Your task to perform on an android device: Open Wikipedia Image 0: 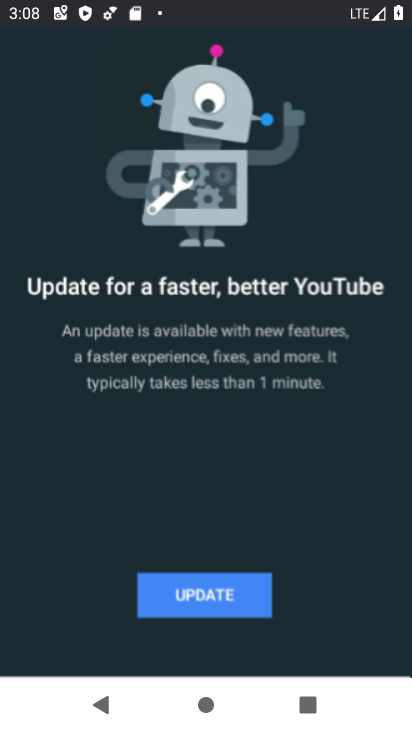
Step 0: press home button
Your task to perform on an android device: Open Wikipedia Image 1: 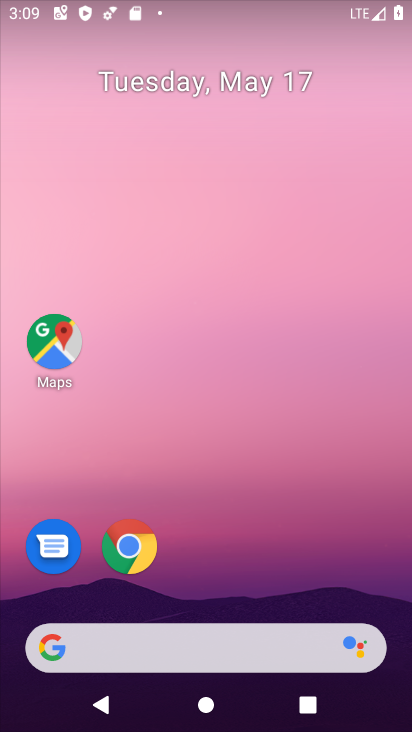
Step 1: click (149, 544)
Your task to perform on an android device: Open Wikipedia Image 2: 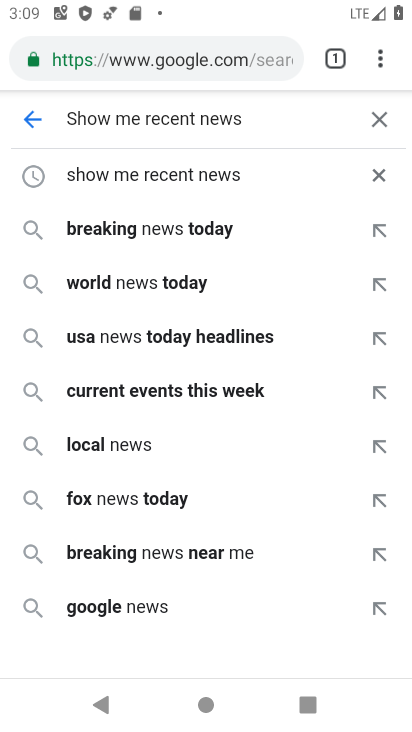
Step 2: click (377, 119)
Your task to perform on an android device: Open Wikipedia Image 3: 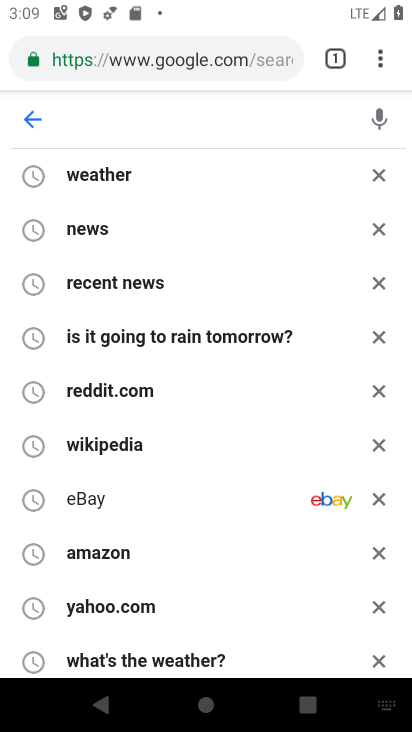
Step 3: click (231, 117)
Your task to perform on an android device: Open Wikipedia Image 4: 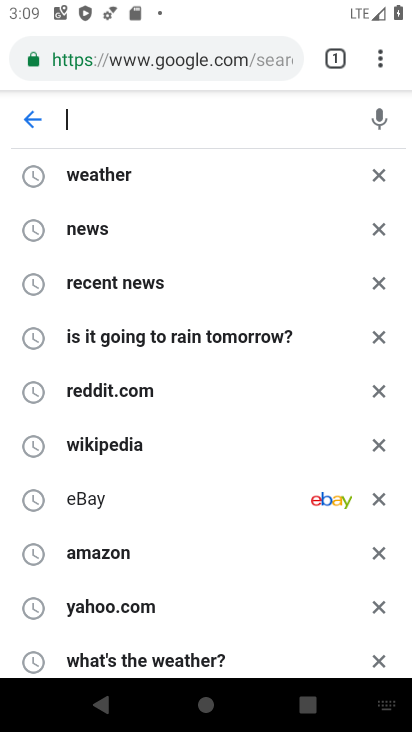
Step 4: type "Wikipedia"
Your task to perform on an android device: Open Wikipedia Image 5: 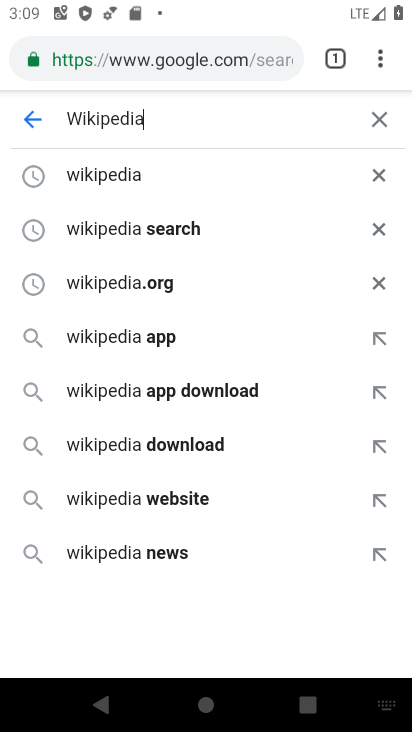
Step 5: click (133, 164)
Your task to perform on an android device: Open Wikipedia Image 6: 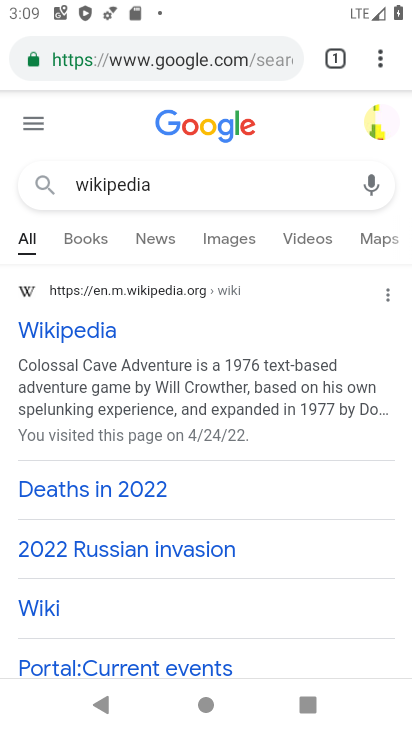
Step 6: click (85, 331)
Your task to perform on an android device: Open Wikipedia Image 7: 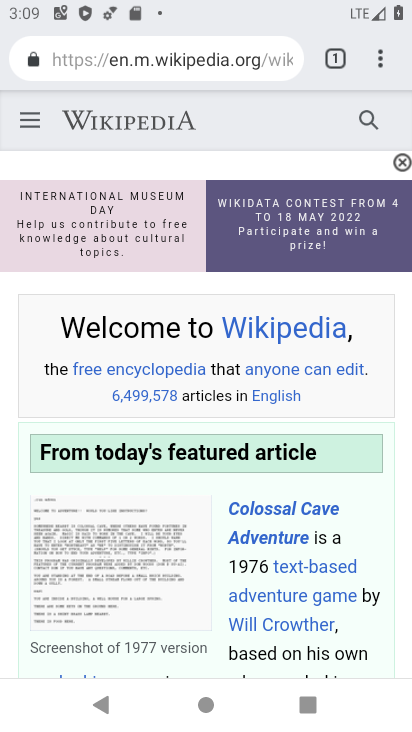
Step 7: task complete